Your task to perform on an android device: create a new album in the google photos Image 0: 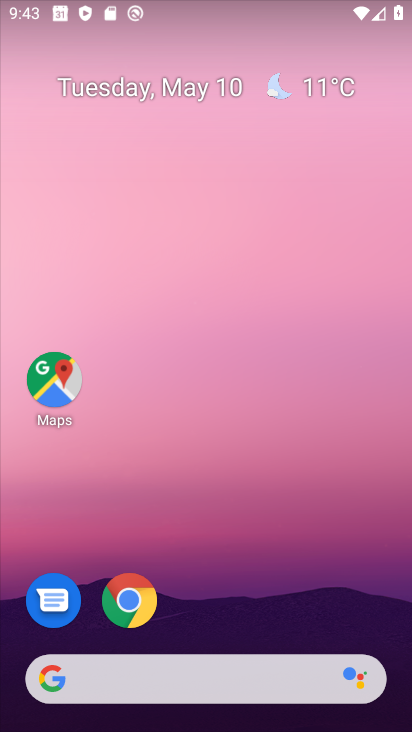
Step 0: drag from (247, 593) to (279, 148)
Your task to perform on an android device: create a new album in the google photos Image 1: 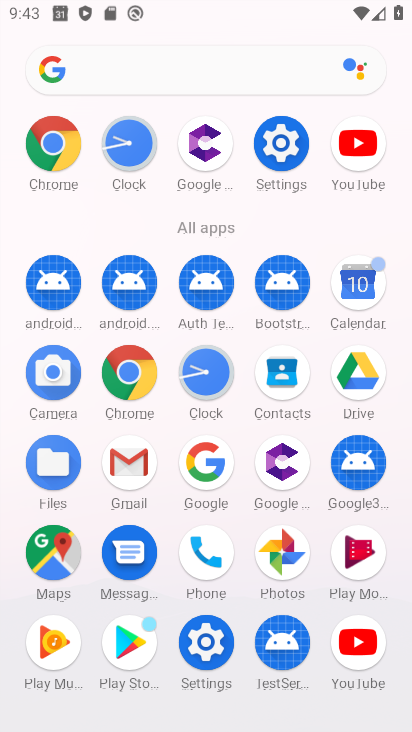
Step 1: click (294, 554)
Your task to perform on an android device: create a new album in the google photos Image 2: 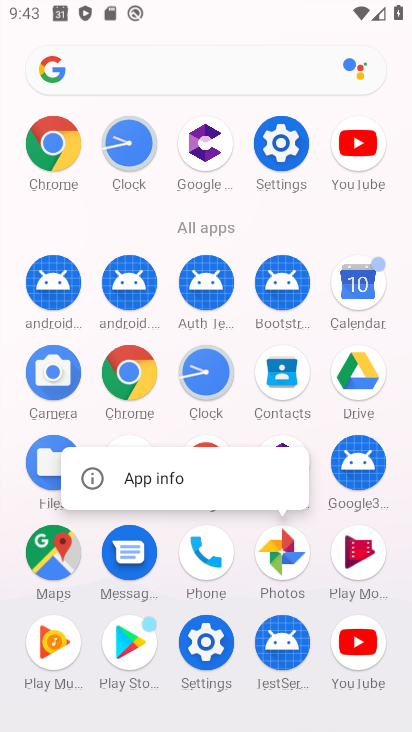
Step 2: click (294, 554)
Your task to perform on an android device: create a new album in the google photos Image 3: 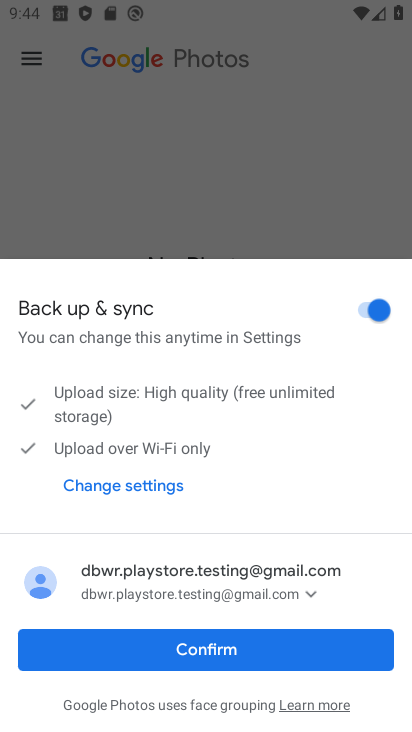
Step 3: click (251, 640)
Your task to perform on an android device: create a new album in the google photos Image 4: 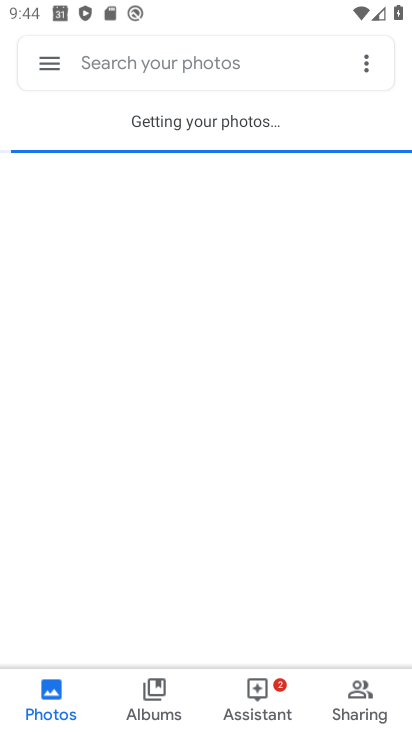
Step 4: click (147, 704)
Your task to perform on an android device: create a new album in the google photos Image 5: 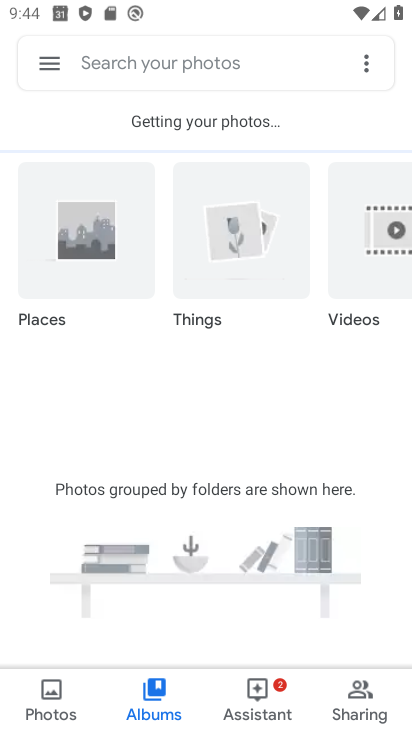
Step 5: click (171, 123)
Your task to perform on an android device: create a new album in the google photos Image 6: 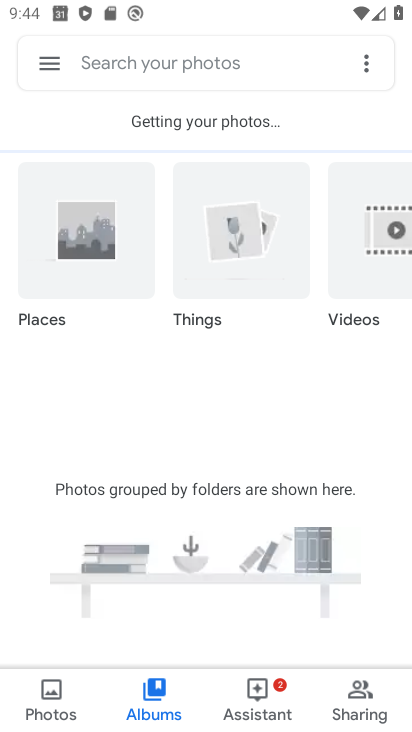
Step 6: task complete